Your task to perform on an android device: Search for pizza restaurants on Maps Image 0: 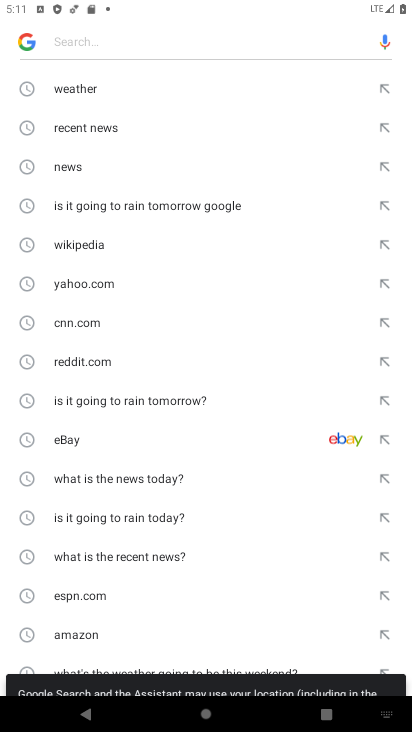
Step 0: press home button
Your task to perform on an android device: Search for pizza restaurants on Maps Image 1: 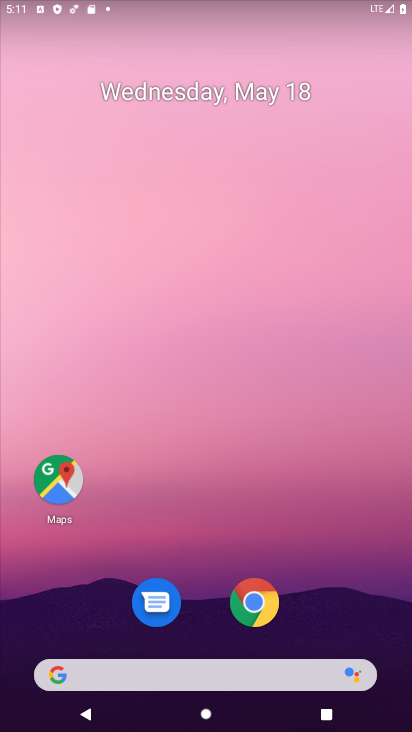
Step 1: drag from (320, 595) to (391, 564)
Your task to perform on an android device: Search for pizza restaurants on Maps Image 2: 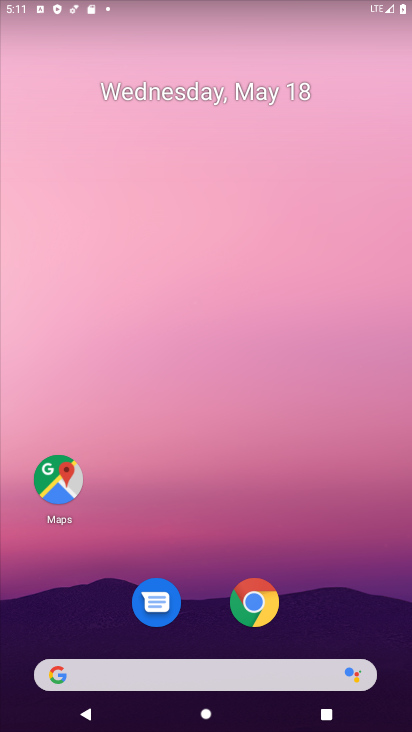
Step 2: drag from (327, 646) to (408, 685)
Your task to perform on an android device: Search for pizza restaurants on Maps Image 3: 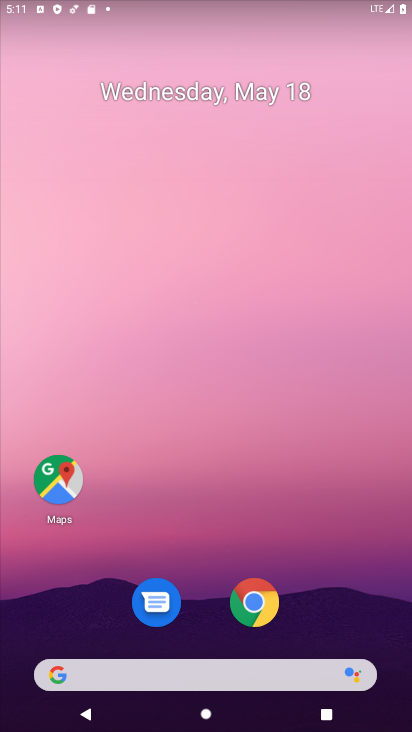
Step 3: drag from (306, 651) to (351, 85)
Your task to perform on an android device: Search for pizza restaurants on Maps Image 4: 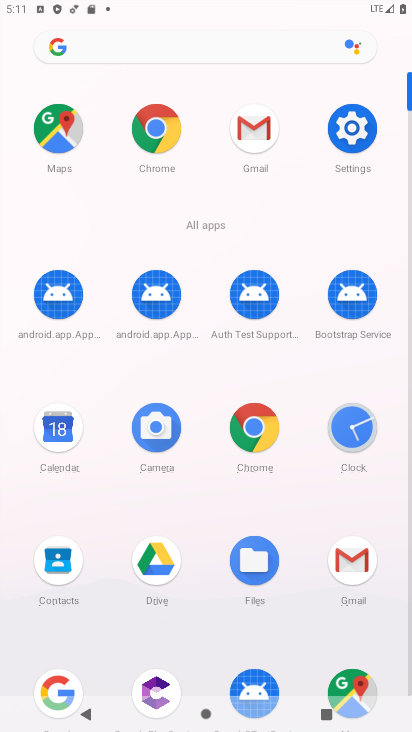
Step 4: click (345, 675)
Your task to perform on an android device: Search for pizza restaurants on Maps Image 5: 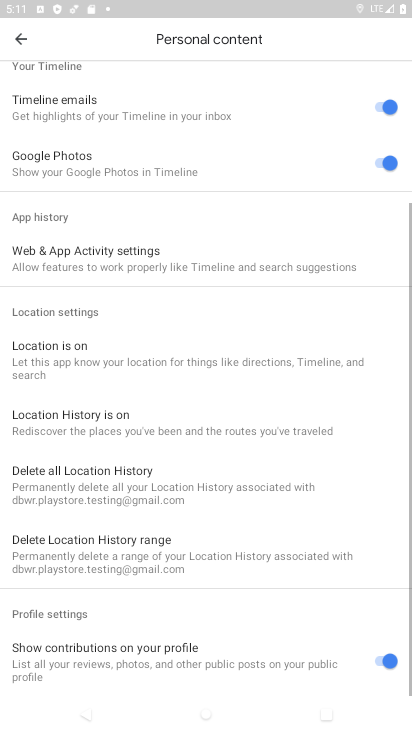
Step 5: press back button
Your task to perform on an android device: Search for pizza restaurants on Maps Image 6: 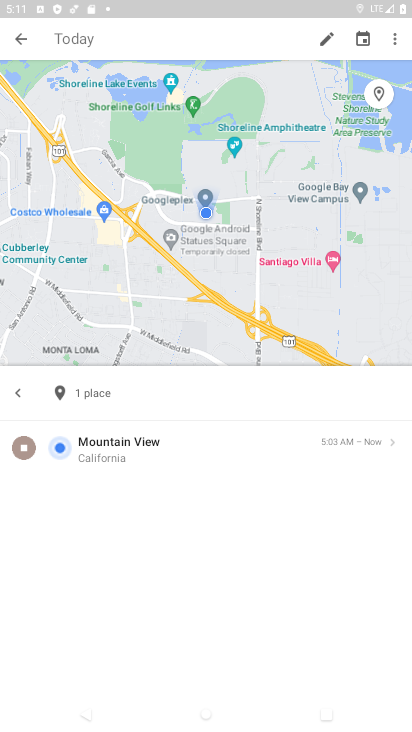
Step 6: press back button
Your task to perform on an android device: Search for pizza restaurants on Maps Image 7: 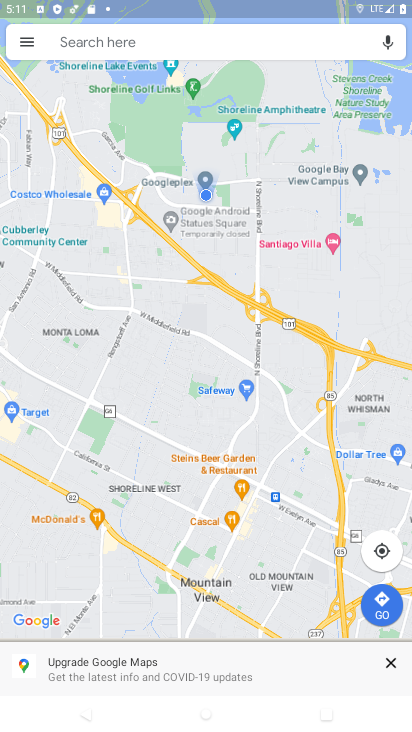
Step 7: click (239, 46)
Your task to perform on an android device: Search for pizza restaurants on Maps Image 8: 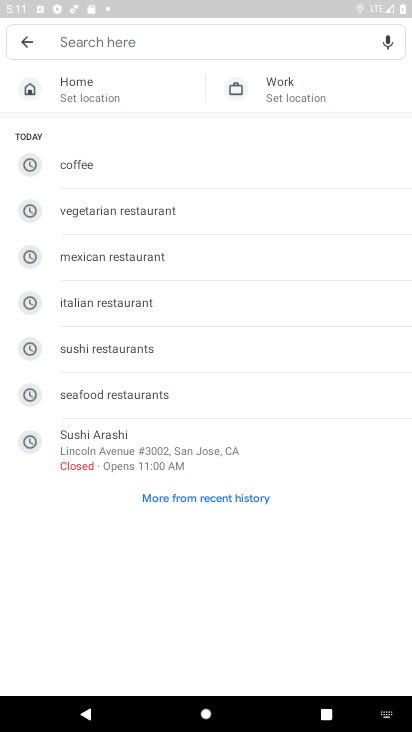
Step 8: type "pizza restaurant"
Your task to perform on an android device: Search for pizza restaurants on Maps Image 9: 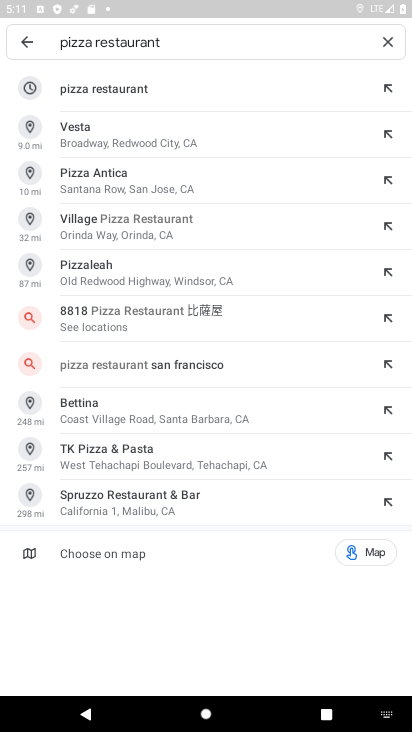
Step 9: click (226, 86)
Your task to perform on an android device: Search for pizza restaurants on Maps Image 10: 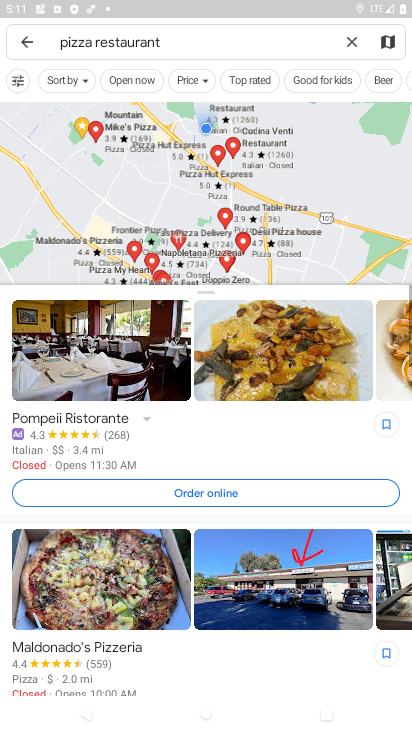
Step 10: task complete